Your task to perform on an android device: turn off notifications settings in the gmail app Image 0: 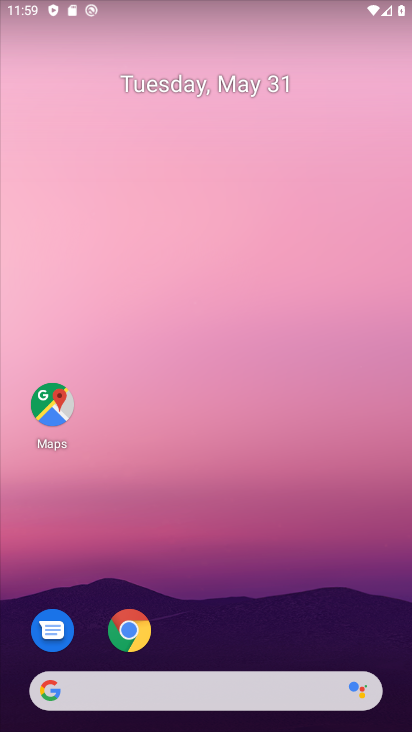
Step 0: drag from (207, 628) to (190, 197)
Your task to perform on an android device: turn off notifications settings in the gmail app Image 1: 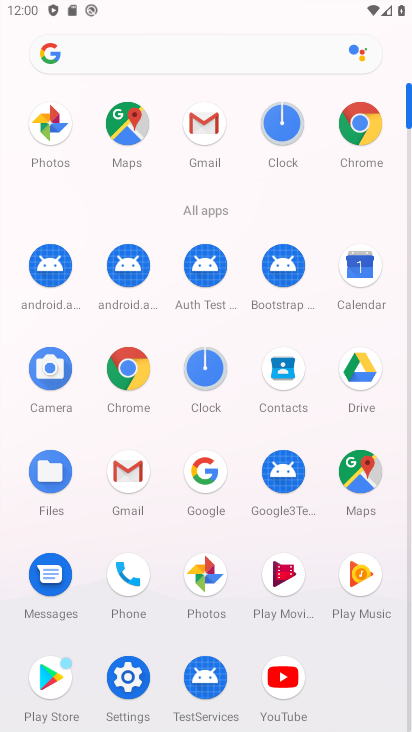
Step 1: click (127, 460)
Your task to perform on an android device: turn off notifications settings in the gmail app Image 2: 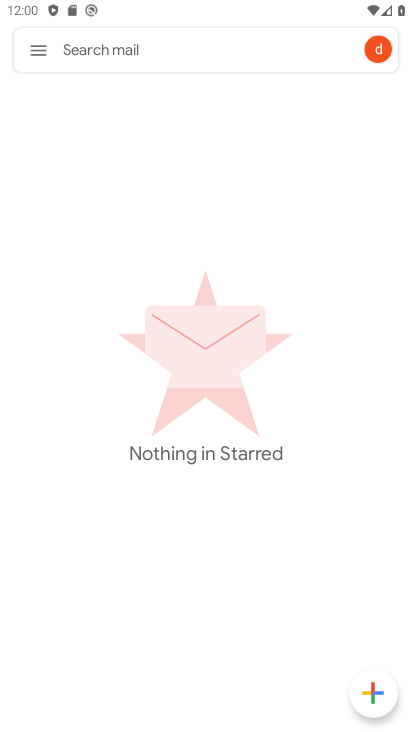
Step 2: click (25, 45)
Your task to perform on an android device: turn off notifications settings in the gmail app Image 3: 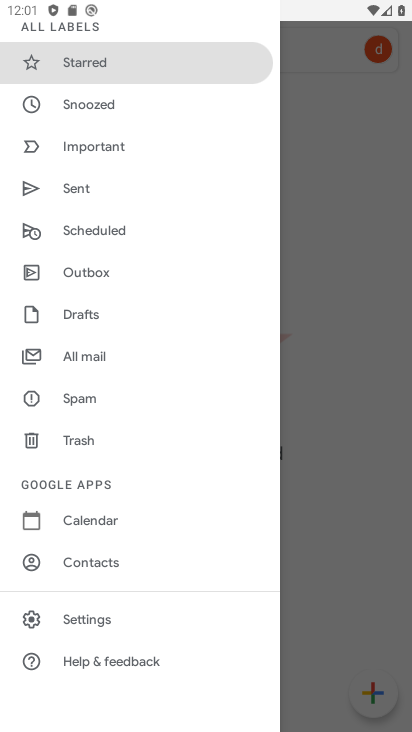
Step 3: click (94, 613)
Your task to perform on an android device: turn off notifications settings in the gmail app Image 4: 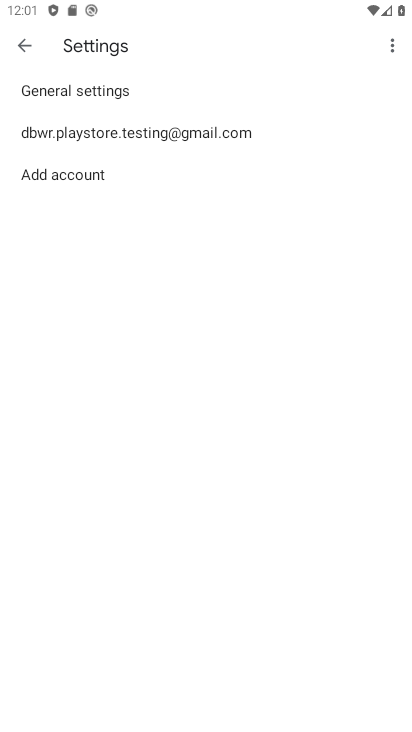
Step 4: click (146, 133)
Your task to perform on an android device: turn off notifications settings in the gmail app Image 5: 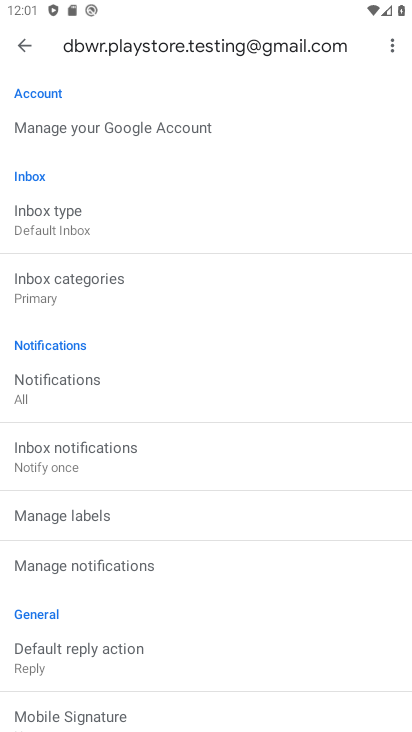
Step 5: drag from (145, 570) to (152, 357)
Your task to perform on an android device: turn off notifications settings in the gmail app Image 6: 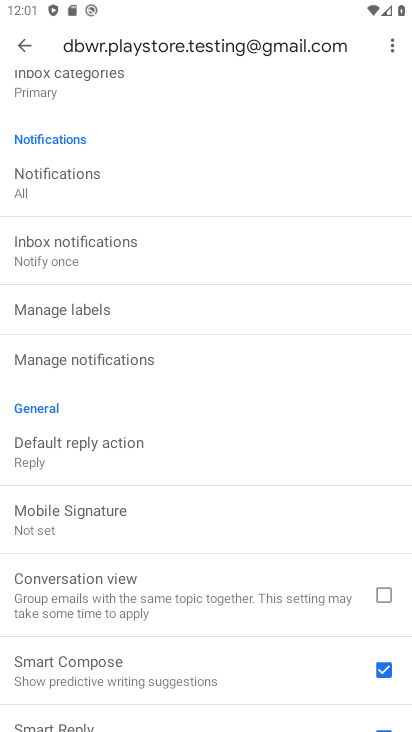
Step 6: click (109, 187)
Your task to perform on an android device: turn off notifications settings in the gmail app Image 7: 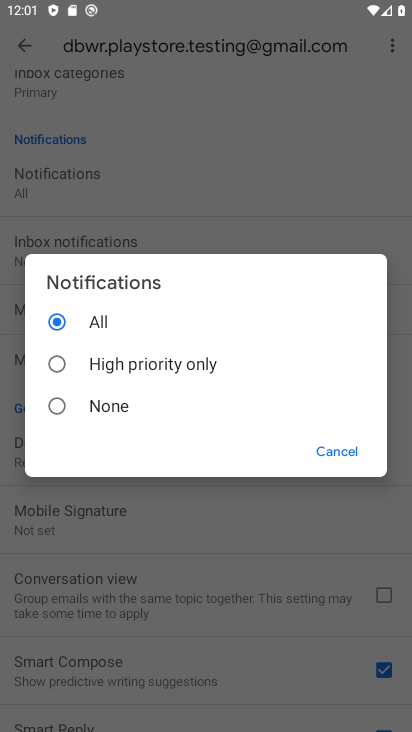
Step 7: click (109, 406)
Your task to perform on an android device: turn off notifications settings in the gmail app Image 8: 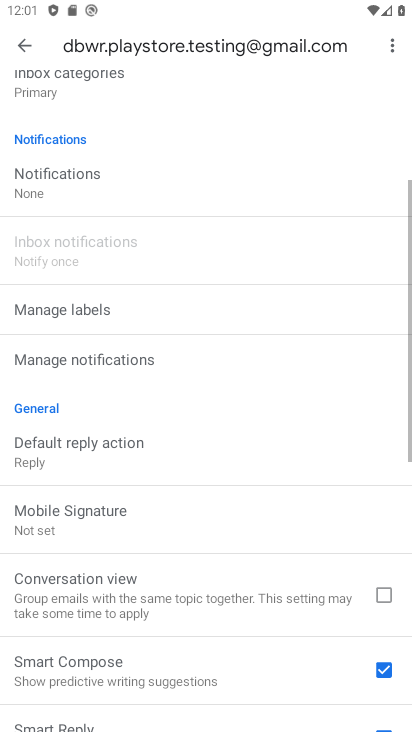
Step 8: task complete